Your task to perform on an android device: How much does a 2 bedroom apartment rent for in Houston? Image 0: 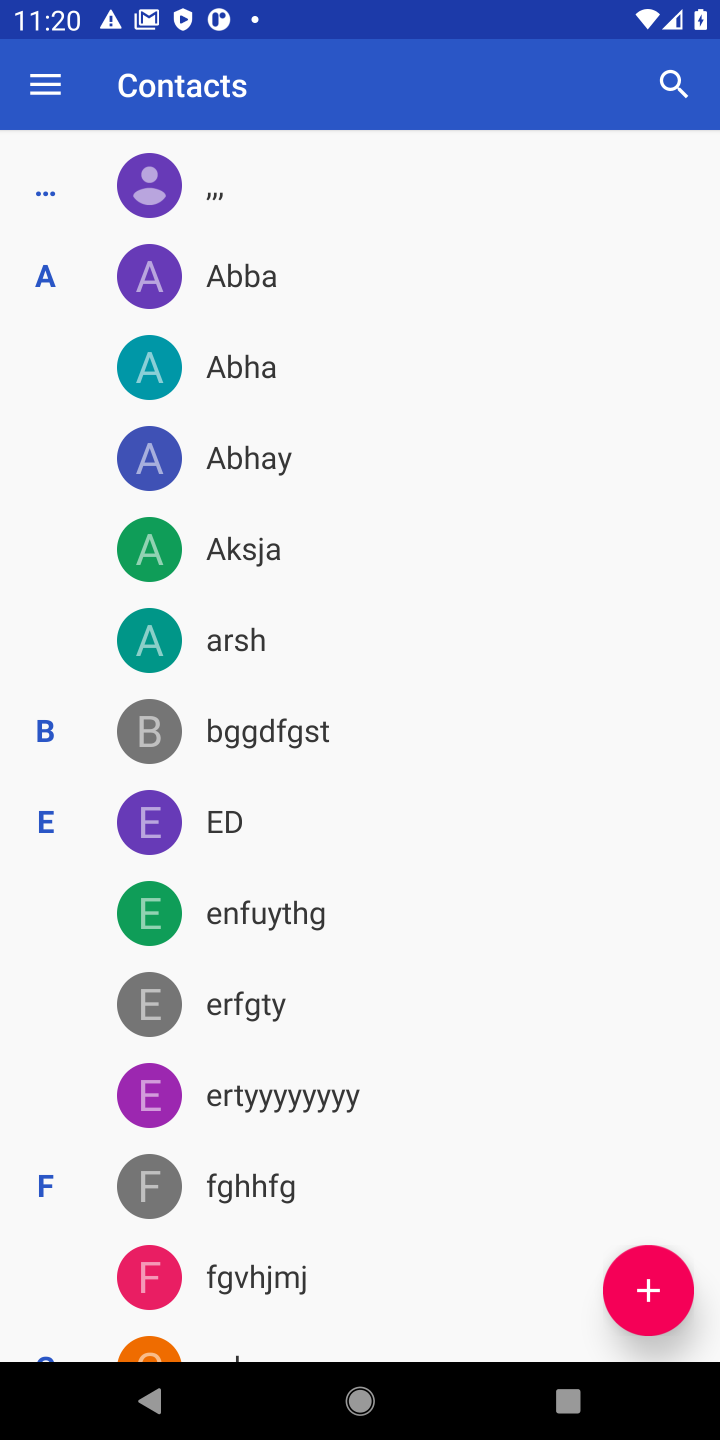
Step 0: press home button
Your task to perform on an android device: How much does a 2 bedroom apartment rent for in Houston? Image 1: 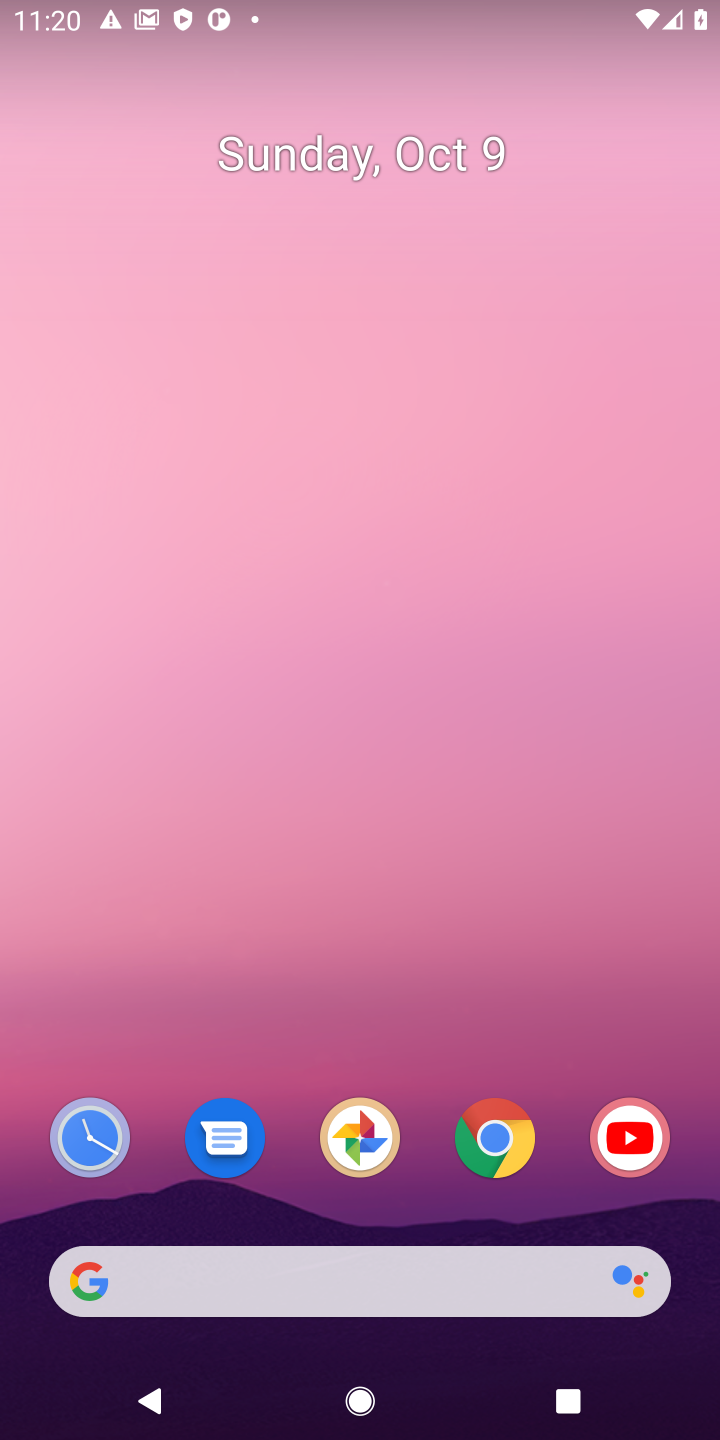
Step 1: click (494, 1133)
Your task to perform on an android device: How much does a 2 bedroom apartment rent for in Houston? Image 2: 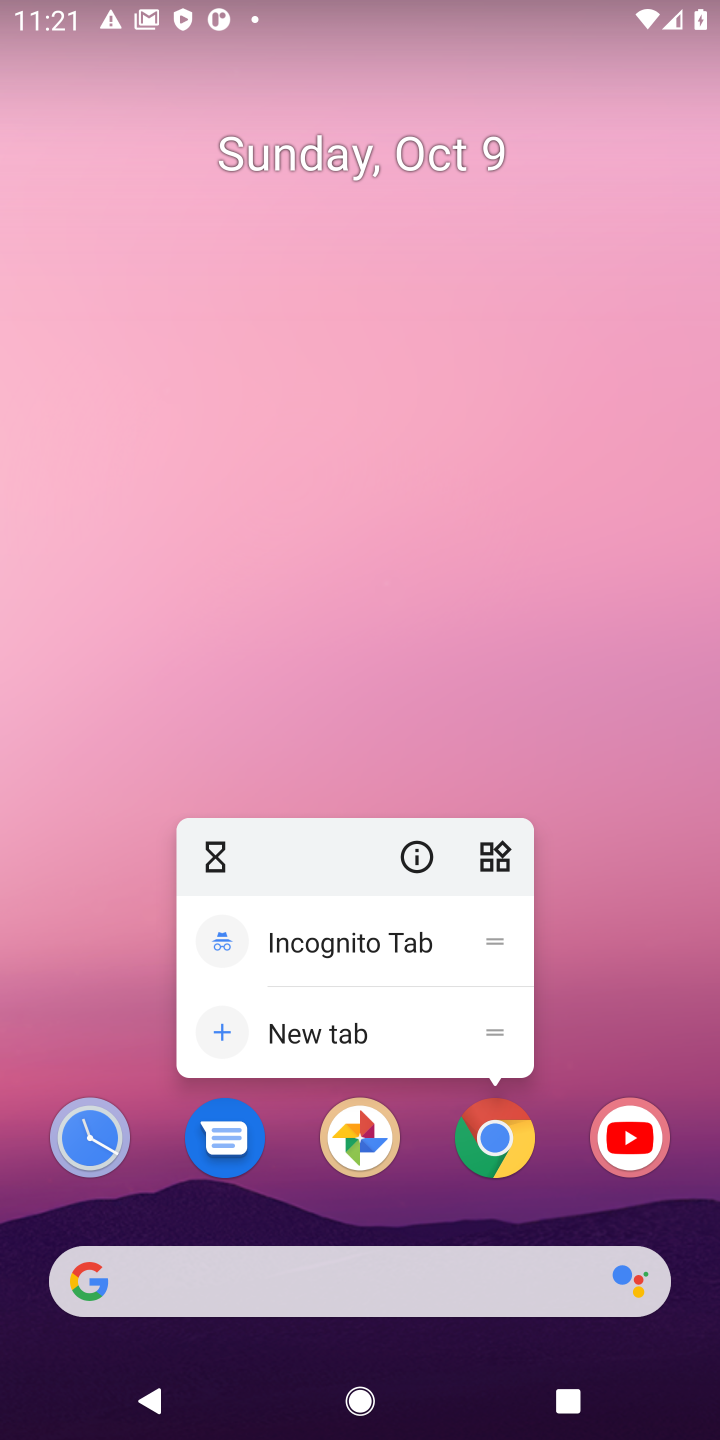
Step 2: click (494, 1145)
Your task to perform on an android device: How much does a 2 bedroom apartment rent for in Houston? Image 3: 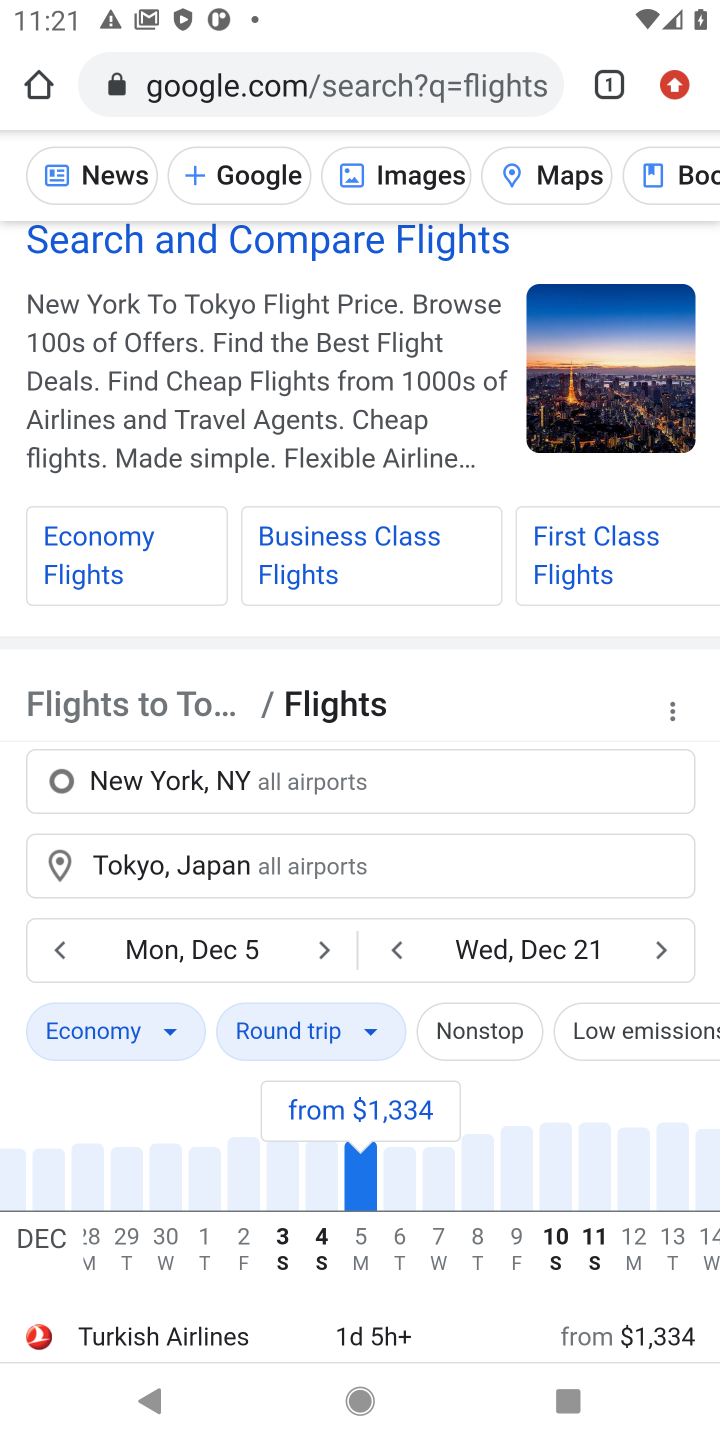
Step 3: drag from (329, 535) to (400, 1266)
Your task to perform on an android device: How much does a 2 bedroom apartment rent for in Houston? Image 4: 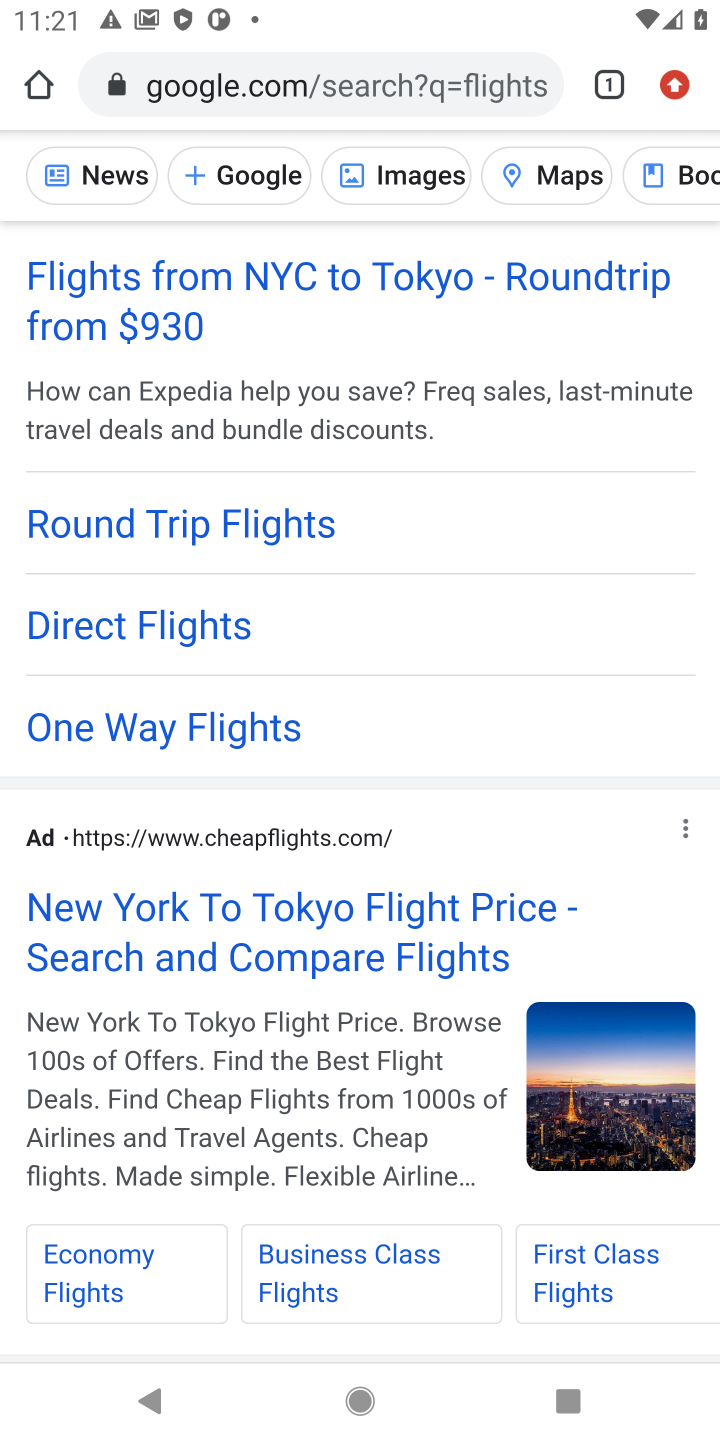
Step 4: drag from (324, 428) to (447, 1082)
Your task to perform on an android device: How much does a 2 bedroom apartment rent for in Houston? Image 5: 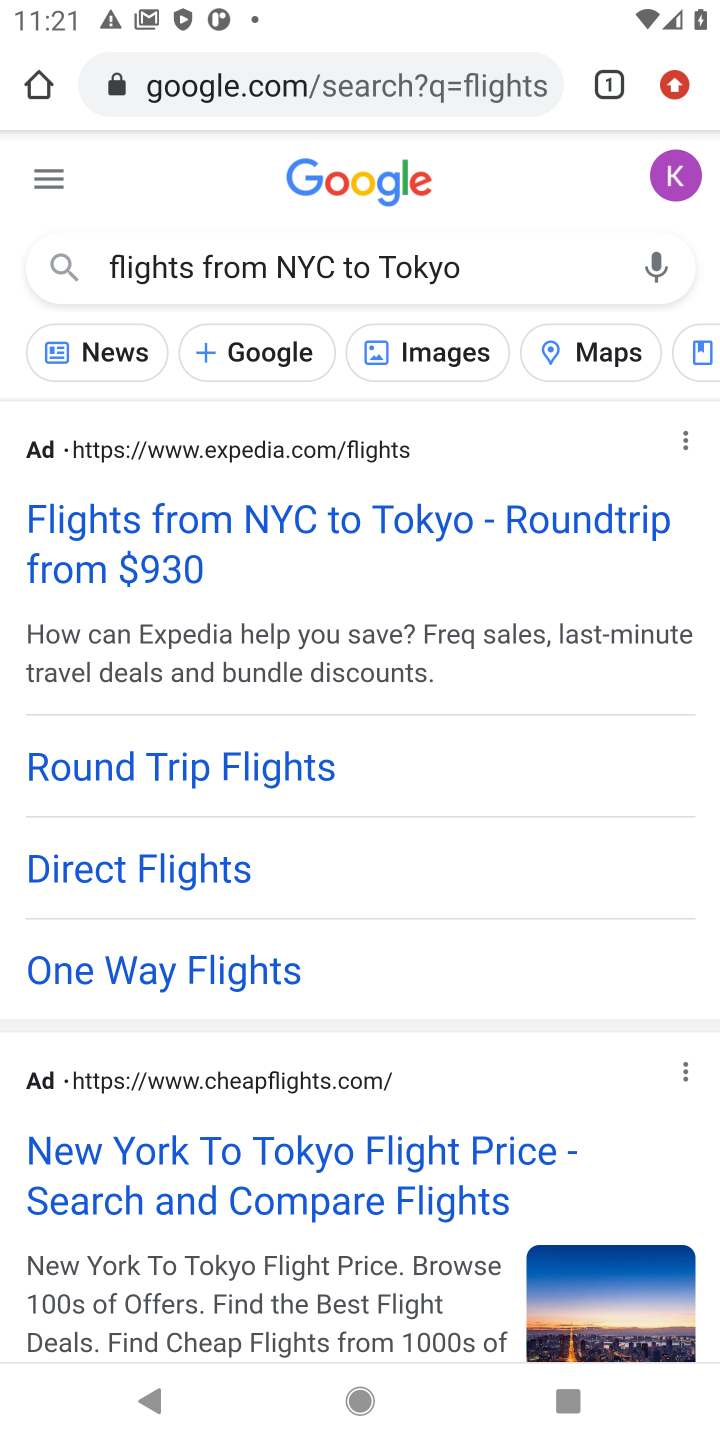
Step 5: click (517, 260)
Your task to perform on an android device: How much does a 2 bedroom apartment rent for in Houston? Image 6: 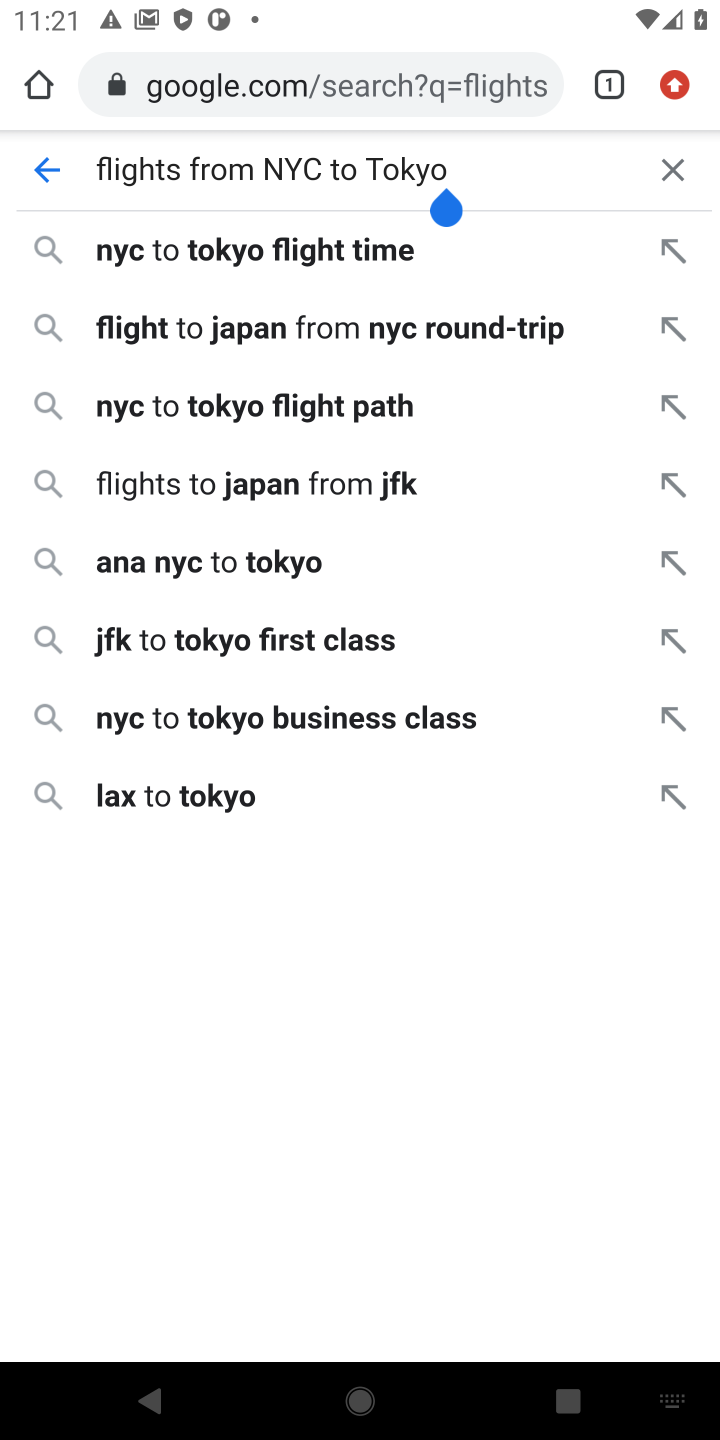
Step 6: click (675, 162)
Your task to perform on an android device: How much does a 2 bedroom apartment rent for in Houston? Image 7: 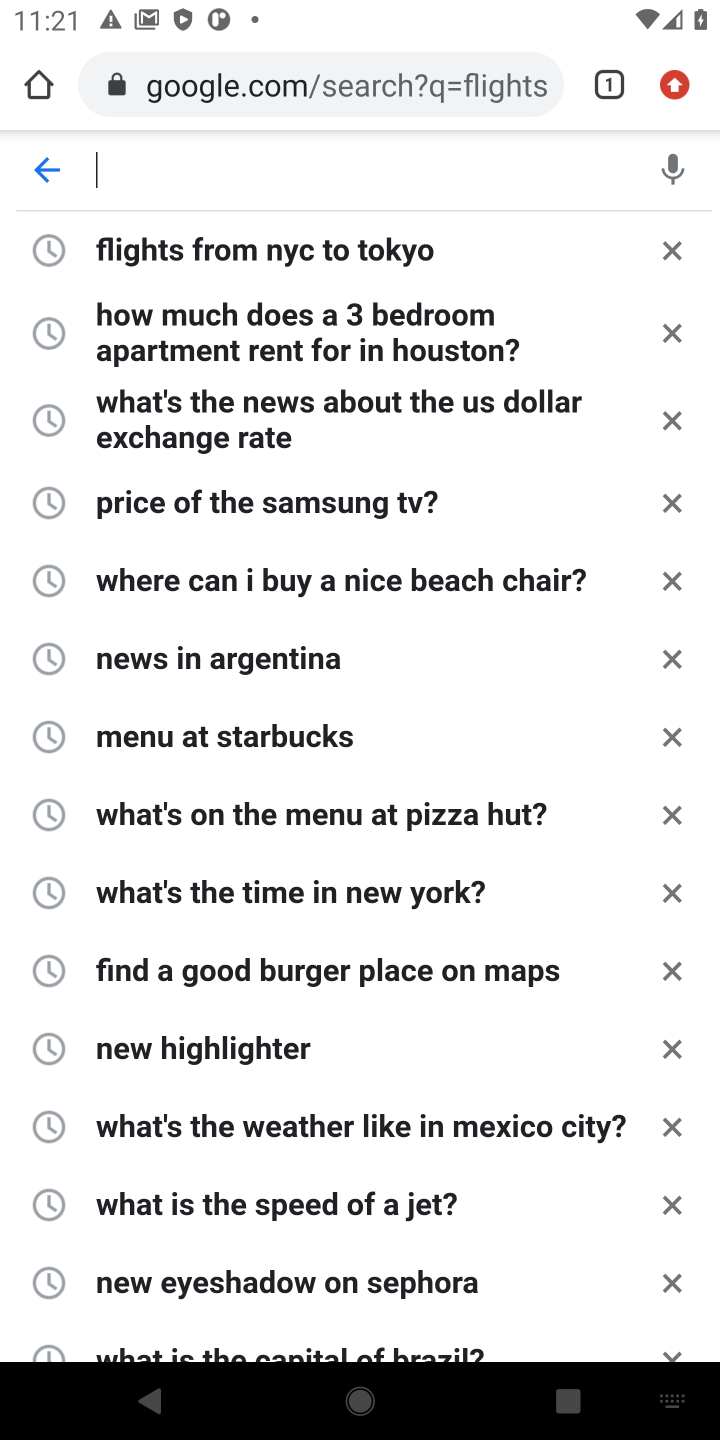
Step 7: type "How much does a 2 bedroom apartment rent for in Houston?"
Your task to perform on an android device: How much does a 2 bedroom apartment rent for in Houston? Image 8: 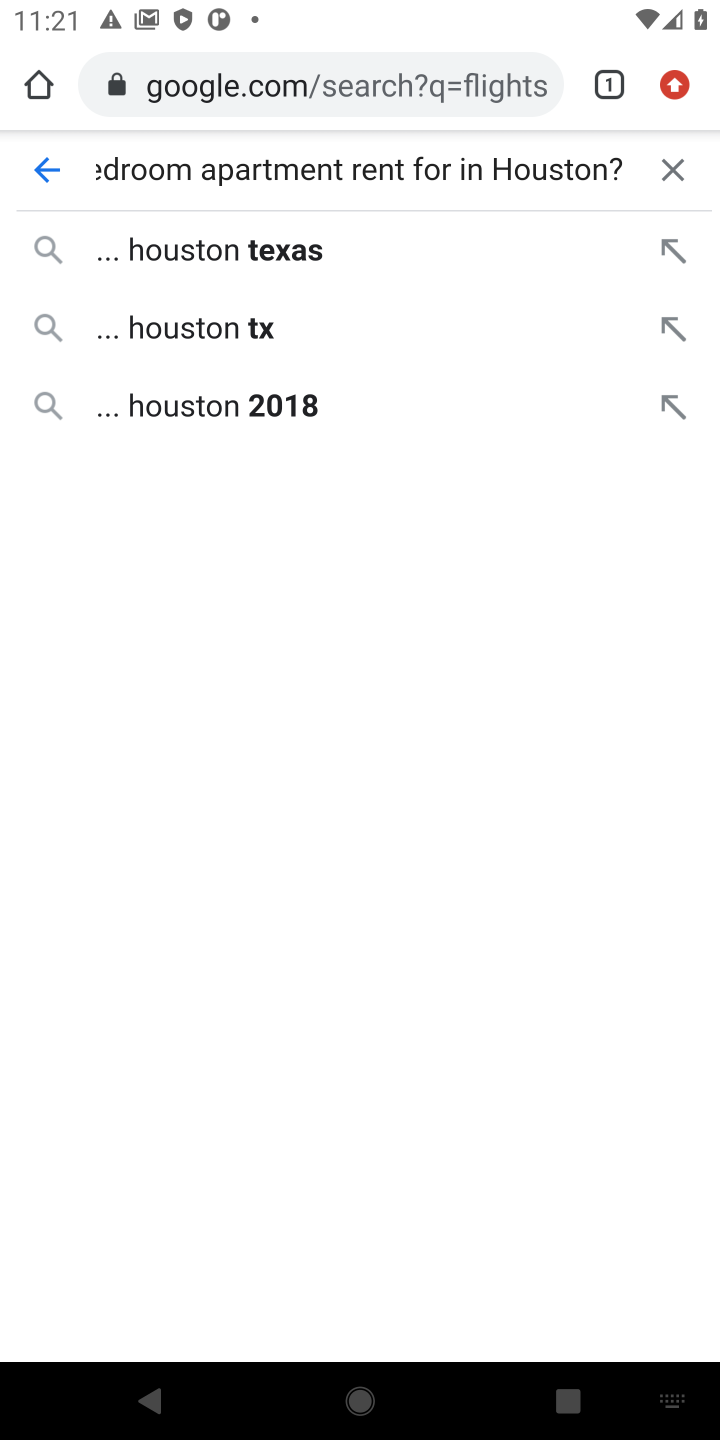
Step 8: press enter
Your task to perform on an android device: How much does a 2 bedroom apartment rent for in Houston? Image 9: 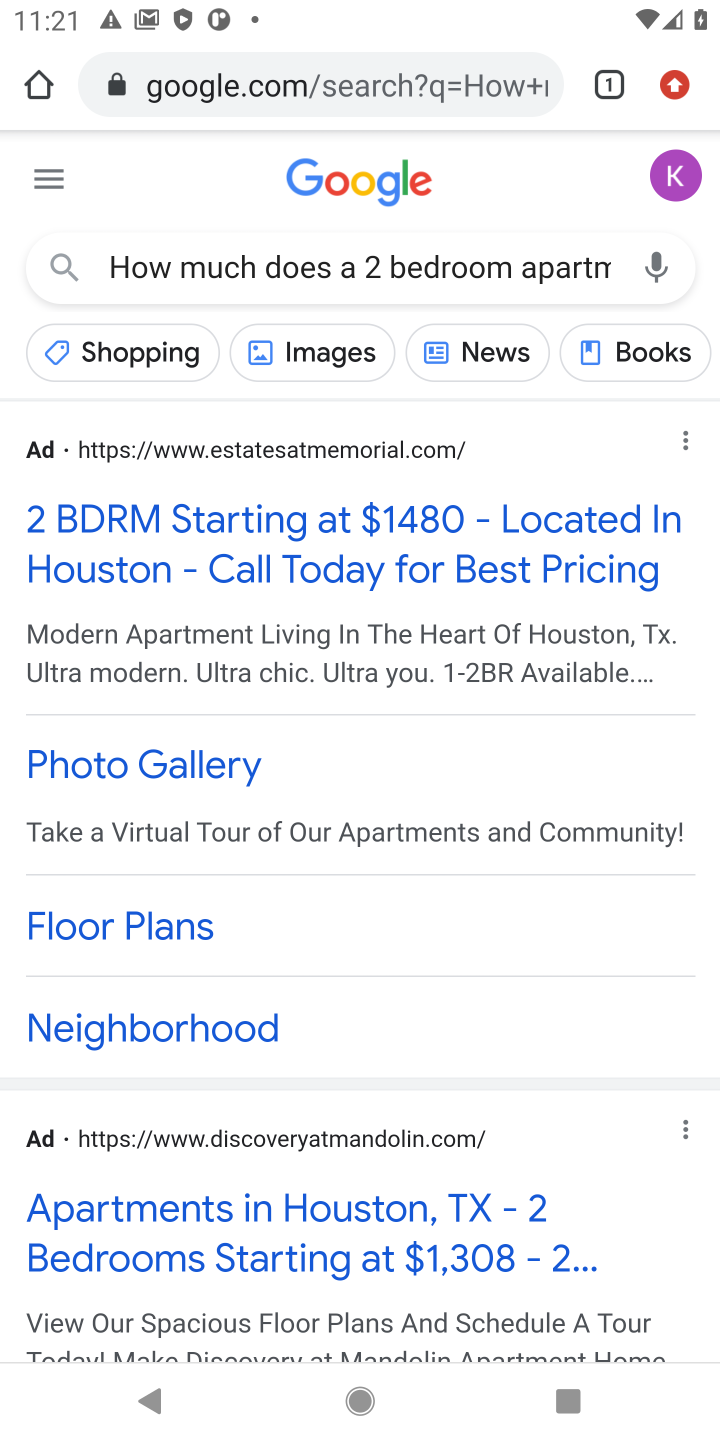
Step 9: task complete